Your task to perform on an android device: Open the Play Movies app and select the watchlist tab. Image 0: 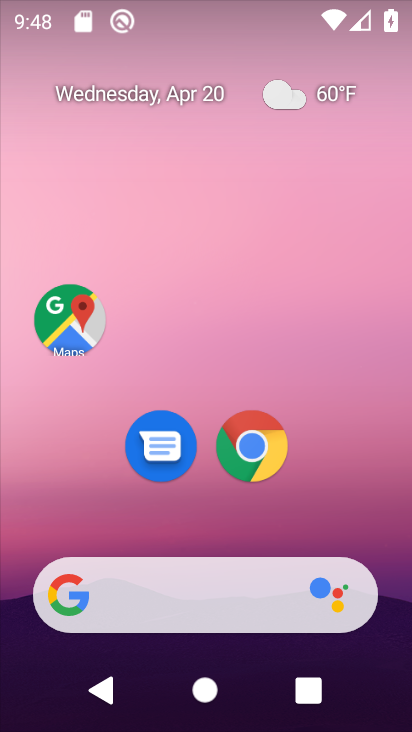
Step 0: drag from (355, 450) to (411, 74)
Your task to perform on an android device: Open the Play Movies app and select the watchlist tab. Image 1: 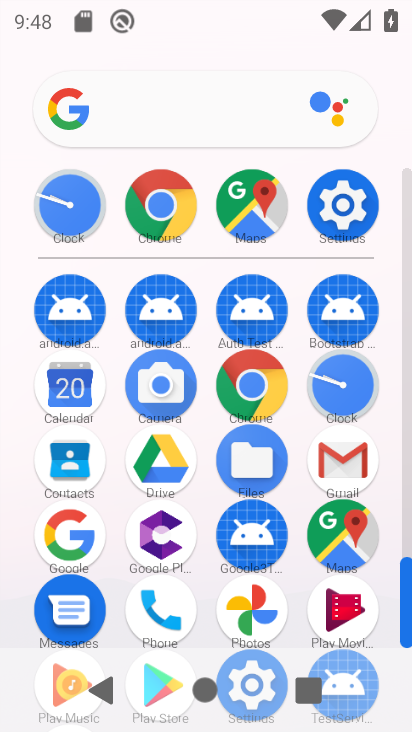
Step 1: click (332, 608)
Your task to perform on an android device: Open the Play Movies app and select the watchlist tab. Image 2: 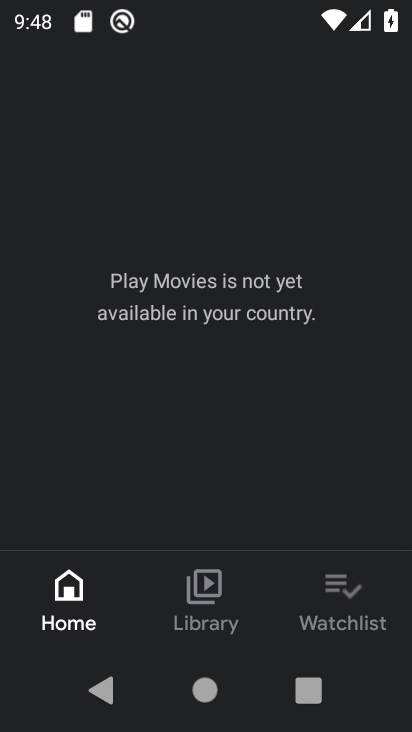
Step 2: task complete